Your task to perform on an android device: open app "Booking.com: Hotels and more" (install if not already installed) Image 0: 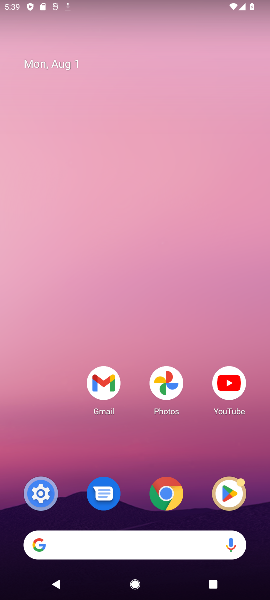
Step 0: drag from (98, 533) to (104, 107)
Your task to perform on an android device: open app "Booking.com: Hotels and more" (install if not already installed) Image 1: 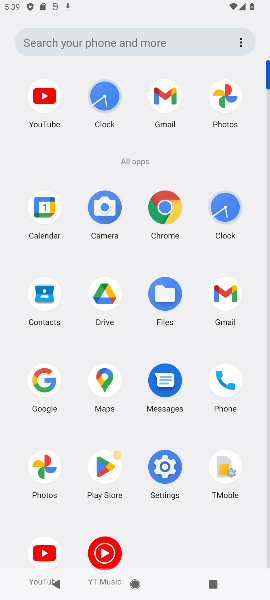
Step 1: click (106, 472)
Your task to perform on an android device: open app "Booking.com: Hotels and more" (install if not already installed) Image 2: 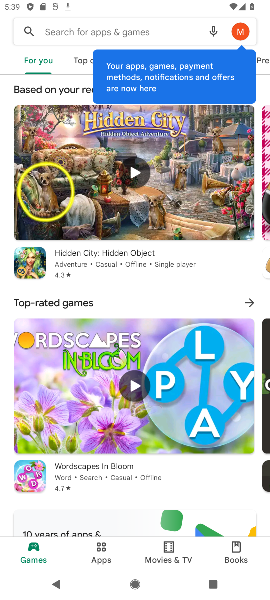
Step 2: click (87, 35)
Your task to perform on an android device: open app "Booking.com: Hotels and more" (install if not already installed) Image 3: 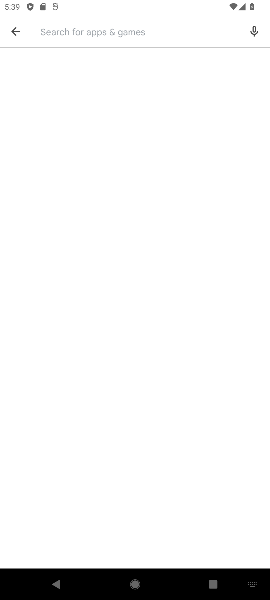
Step 3: type "Booking.com: Hotels and more"
Your task to perform on an android device: open app "Booking.com: Hotels and more" (install if not already installed) Image 4: 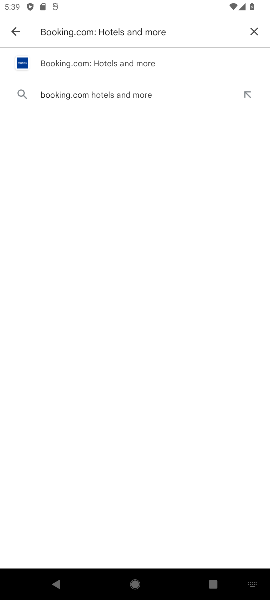
Step 4: click (98, 65)
Your task to perform on an android device: open app "Booking.com: Hotels and more" (install if not already installed) Image 5: 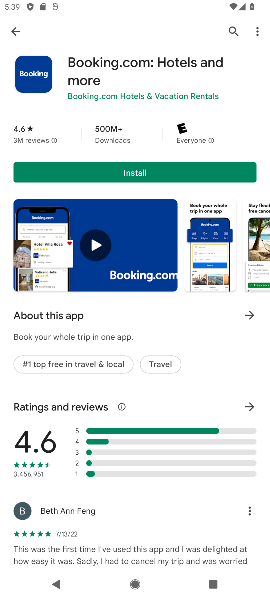
Step 5: click (127, 171)
Your task to perform on an android device: open app "Booking.com: Hotels and more" (install if not already installed) Image 6: 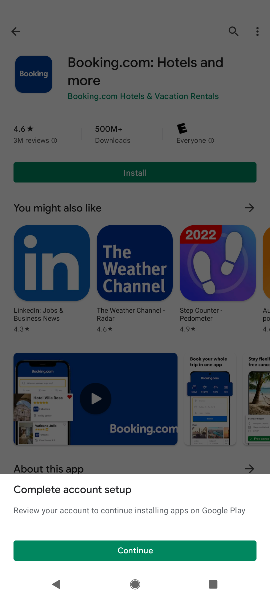
Step 6: click (136, 550)
Your task to perform on an android device: open app "Booking.com: Hotels and more" (install if not already installed) Image 7: 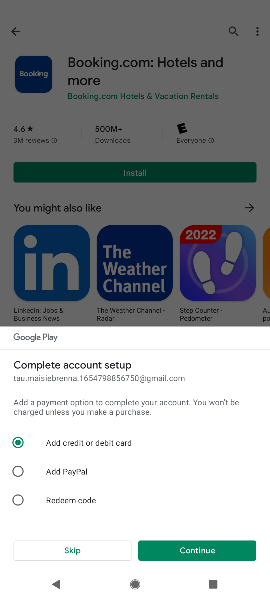
Step 7: click (83, 548)
Your task to perform on an android device: open app "Booking.com: Hotels and more" (install if not already installed) Image 8: 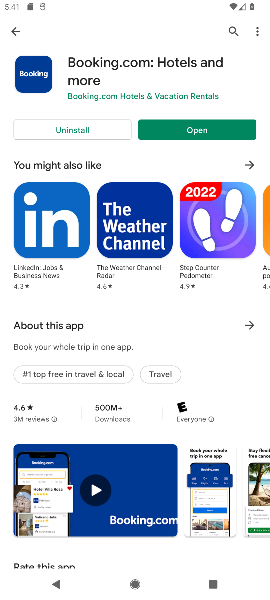
Step 8: click (217, 130)
Your task to perform on an android device: open app "Booking.com: Hotels and more" (install if not already installed) Image 9: 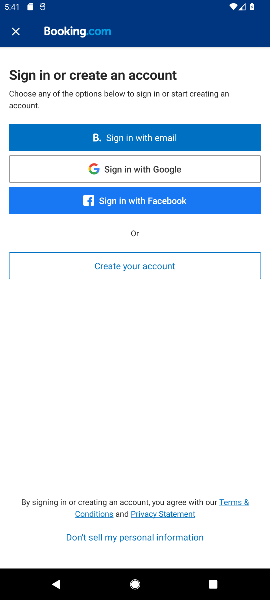
Step 9: task complete